Your task to perform on an android device: choose inbox layout in the gmail app Image 0: 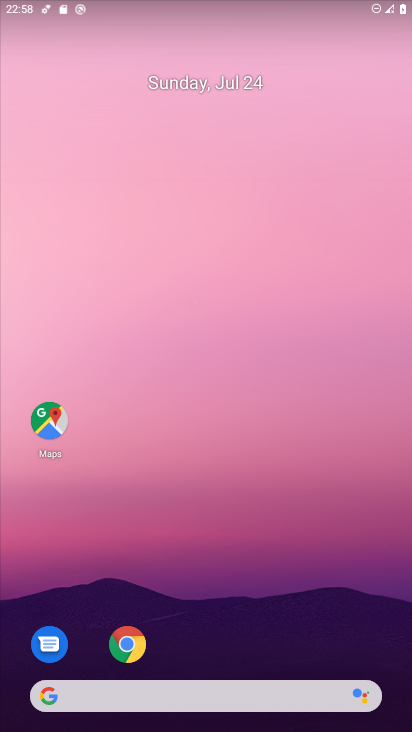
Step 0: drag from (338, 635) to (336, 171)
Your task to perform on an android device: choose inbox layout in the gmail app Image 1: 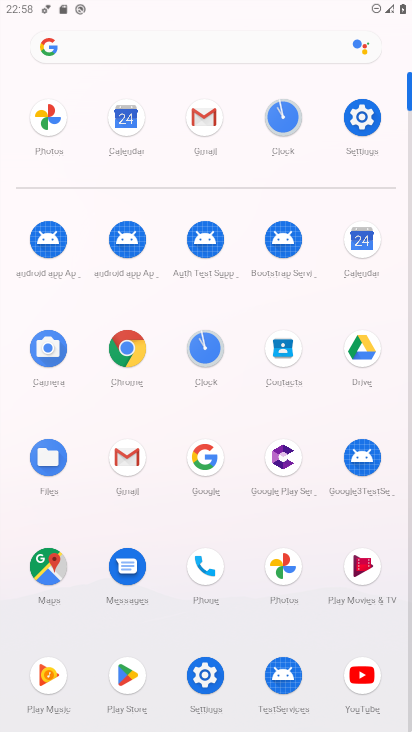
Step 1: click (124, 458)
Your task to perform on an android device: choose inbox layout in the gmail app Image 2: 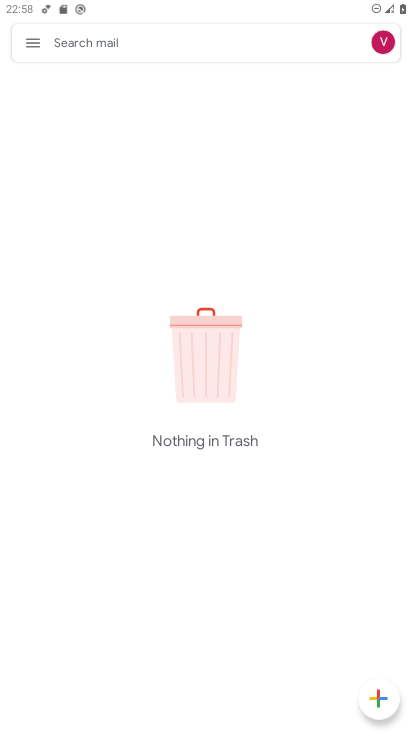
Step 2: click (32, 40)
Your task to perform on an android device: choose inbox layout in the gmail app Image 3: 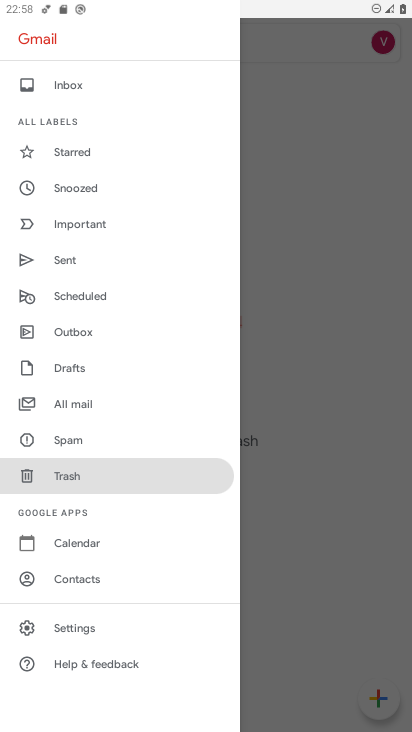
Step 3: click (68, 623)
Your task to perform on an android device: choose inbox layout in the gmail app Image 4: 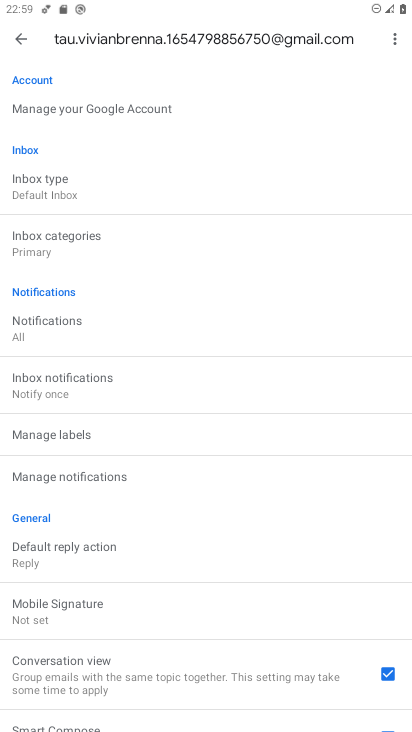
Step 4: click (34, 175)
Your task to perform on an android device: choose inbox layout in the gmail app Image 5: 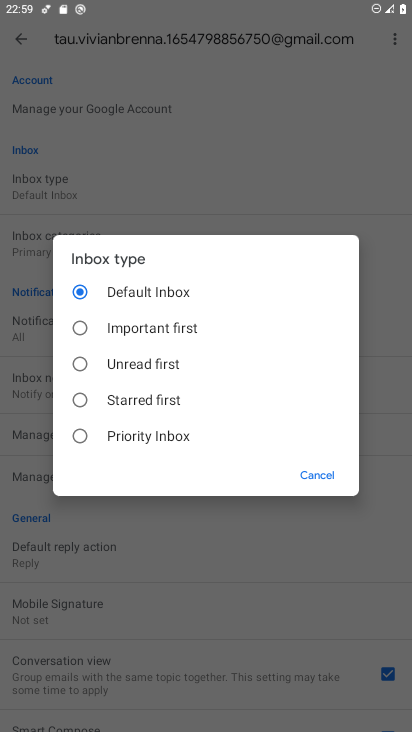
Step 5: click (78, 432)
Your task to perform on an android device: choose inbox layout in the gmail app Image 6: 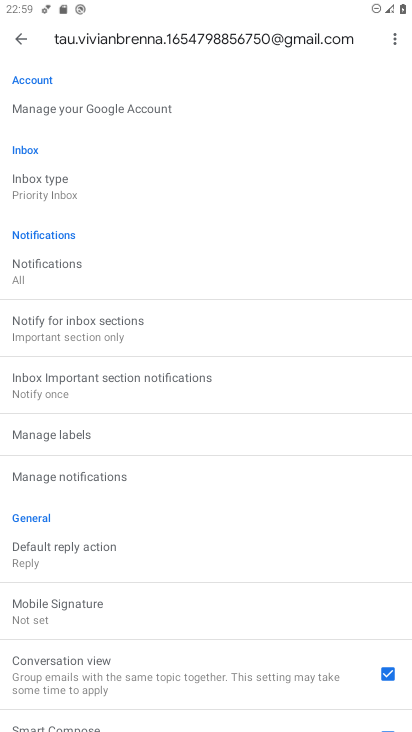
Step 6: task complete